Your task to perform on an android device: Go to settings Image 0: 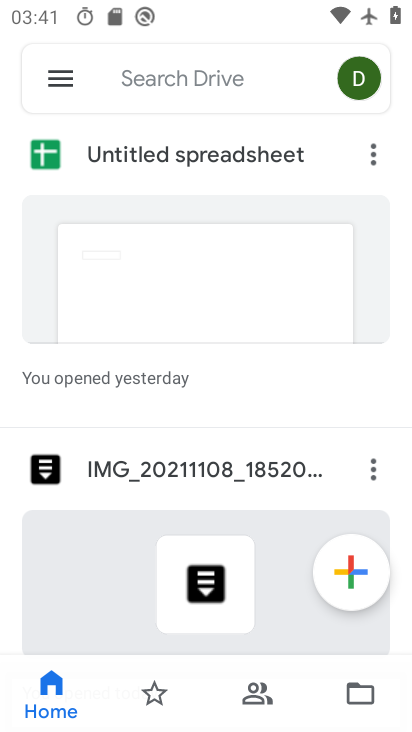
Step 0: press home button
Your task to perform on an android device: Go to settings Image 1: 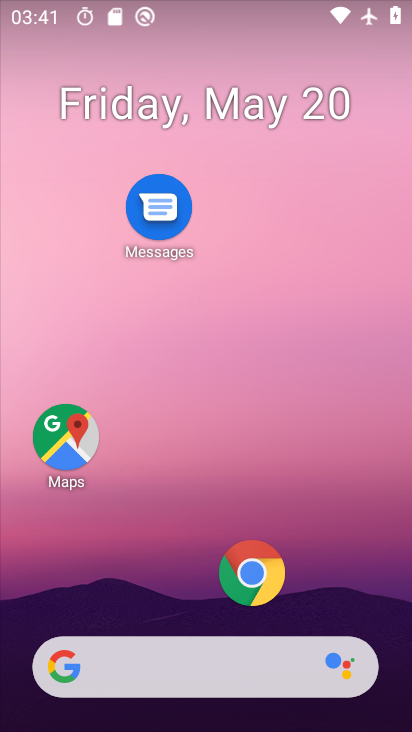
Step 1: drag from (191, 608) to (234, 235)
Your task to perform on an android device: Go to settings Image 2: 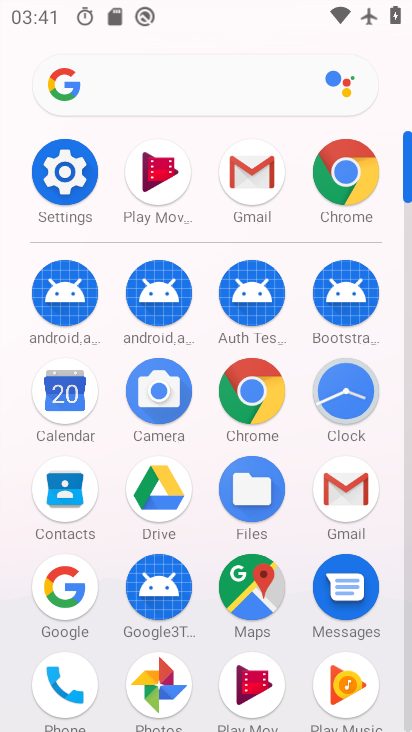
Step 2: click (75, 176)
Your task to perform on an android device: Go to settings Image 3: 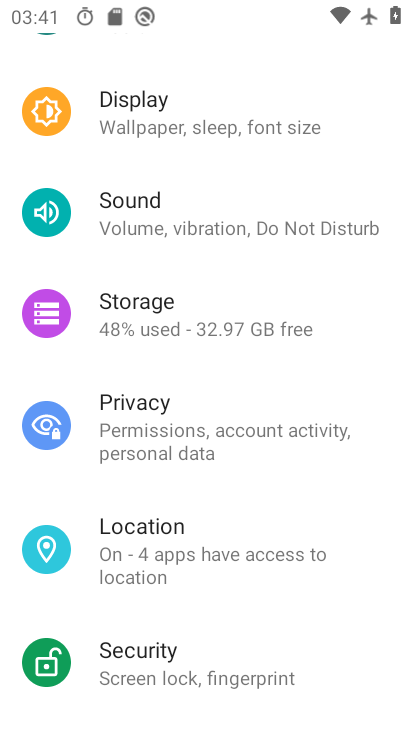
Step 3: task complete